Your task to perform on an android device: check google app version Image 0: 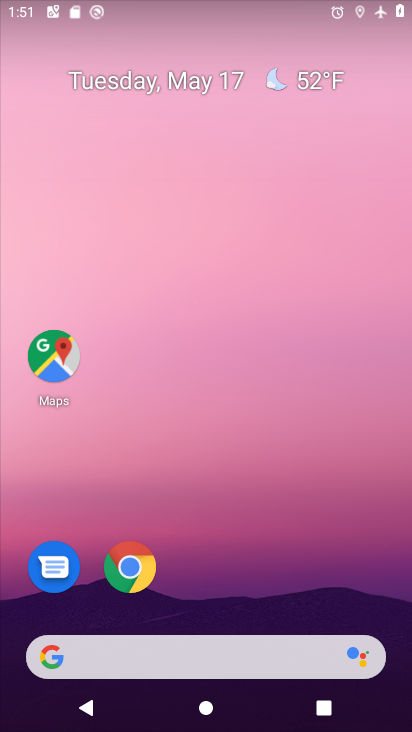
Step 0: drag from (244, 376) to (333, 86)
Your task to perform on an android device: check google app version Image 1: 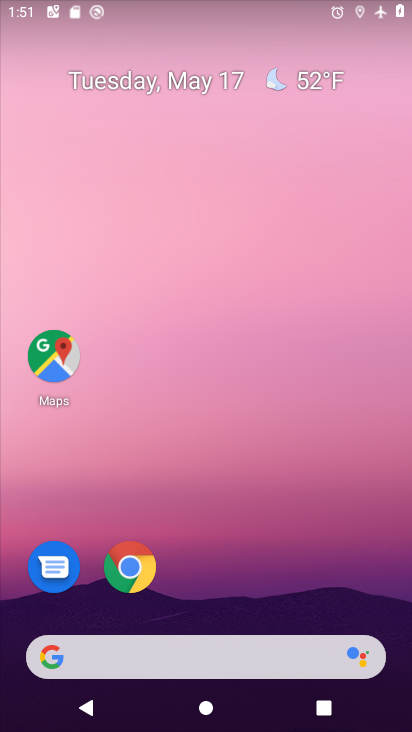
Step 1: click (205, 666)
Your task to perform on an android device: check google app version Image 2: 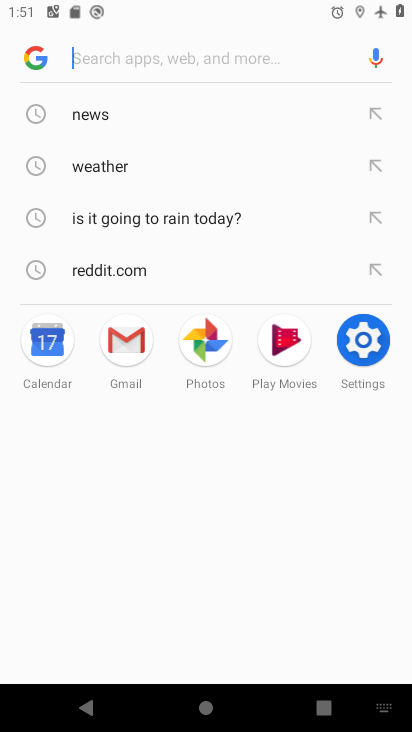
Step 2: click (28, 64)
Your task to perform on an android device: check google app version Image 3: 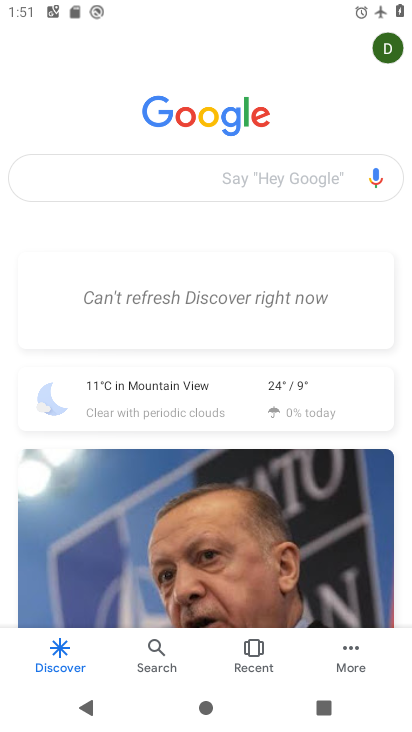
Step 3: click (340, 653)
Your task to perform on an android device: check google app version Image 4: 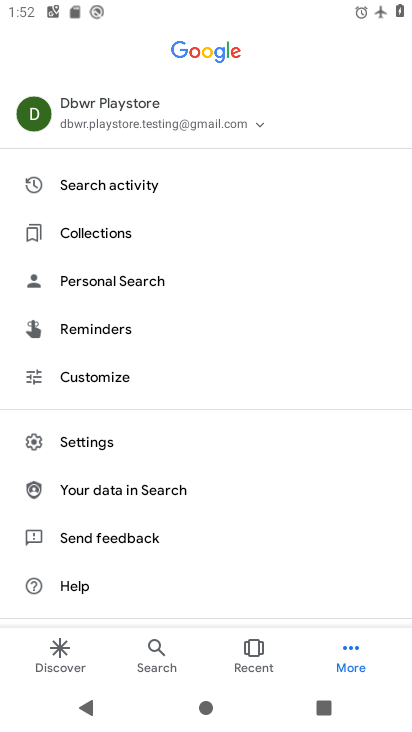
Step 4: click (98, 445)
Your task to perform on an android device: check google app version Image 5: 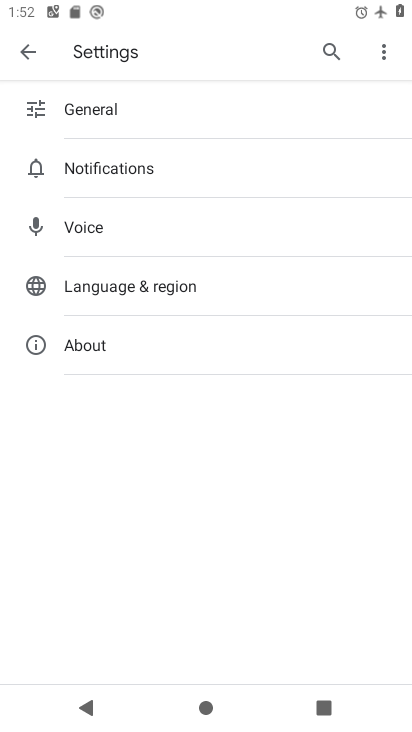
Step 5: click (80, 346)
Your task to perform on an android device: check google app version Image 6: 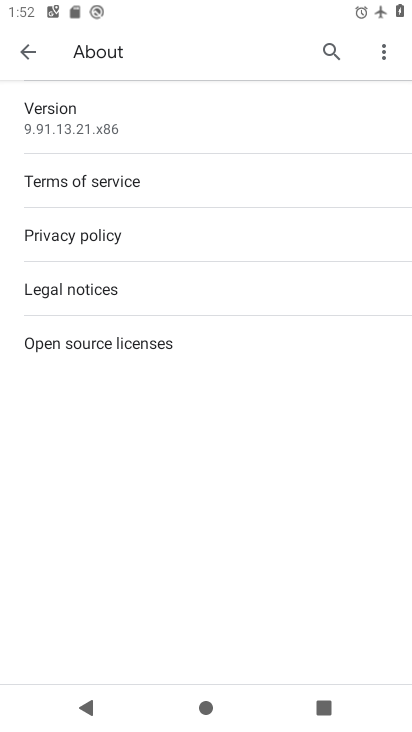
Step 6: task complete